Your task to perform on an android device: Open the calendar and show me this week's events? Image 0: 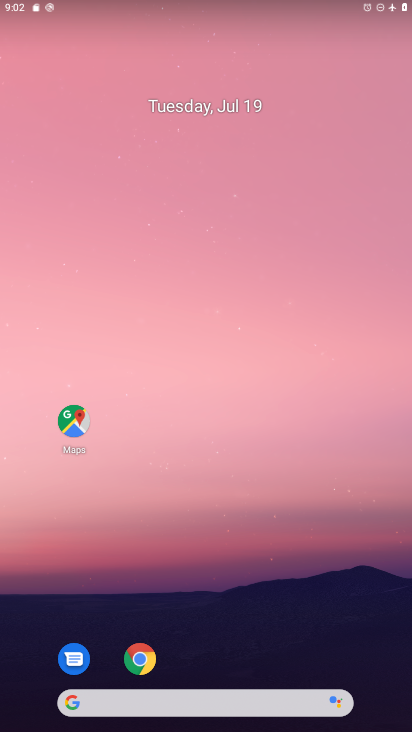
Step 0: drag from (294, 641) to (304, 171)
Your task to perform on an android device: Open the calendar and show me this week's events? Image 1: 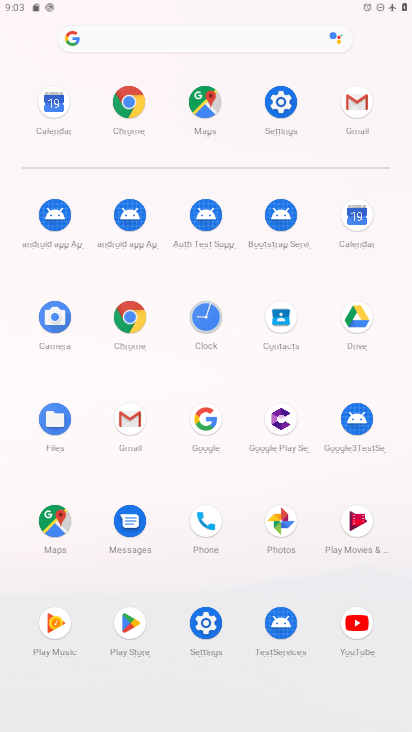
Step 1: click (361, 206)
Your task to perform on an android device: Open the calendar and show me this week's events? Image 2: 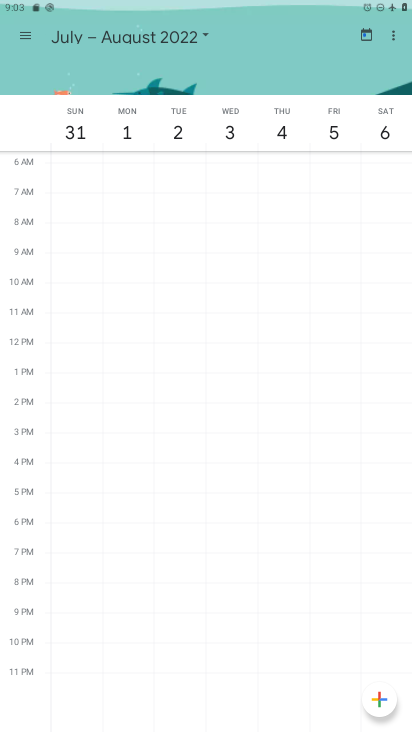
Step 2: click (16, 31)
Your task to perform on an android device: Open the calendar and show me this week's events? Image 3: 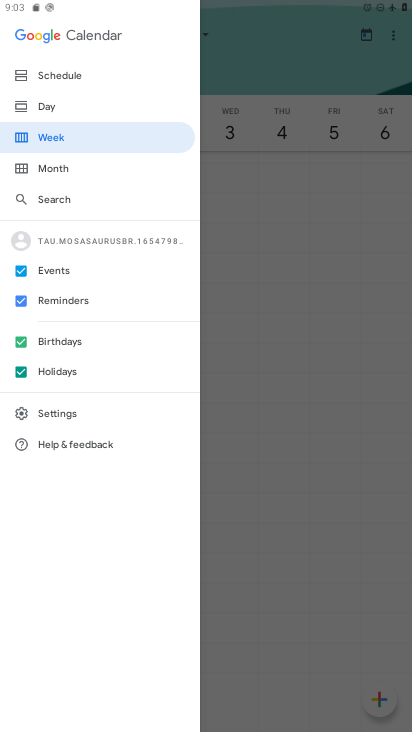
Step 3: click (66, 121)
Your task to perform on an android device: Open the calendar and show me this week's events? Image 4: 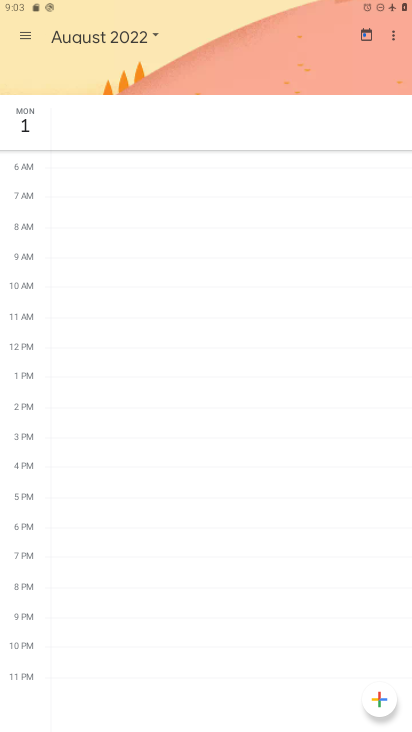
Step 4: click (29, 30)
Your task to perform on an android device: Open the calendar and show me this week's events? Image 5: 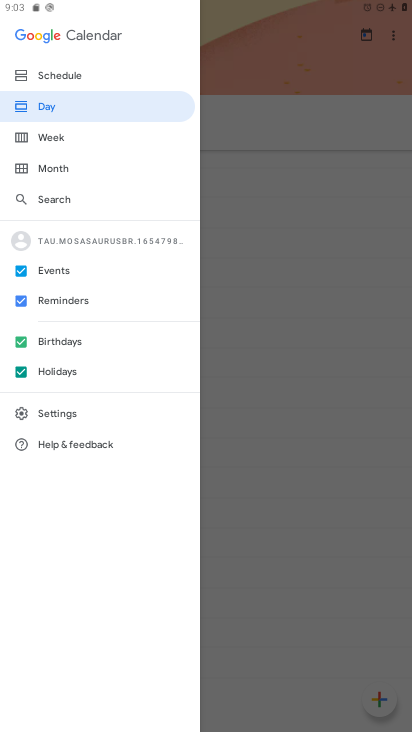
Step 5: click (63, 172)
Your task to perform on an android device: Open the calendar and show me this week's events? Image 6: 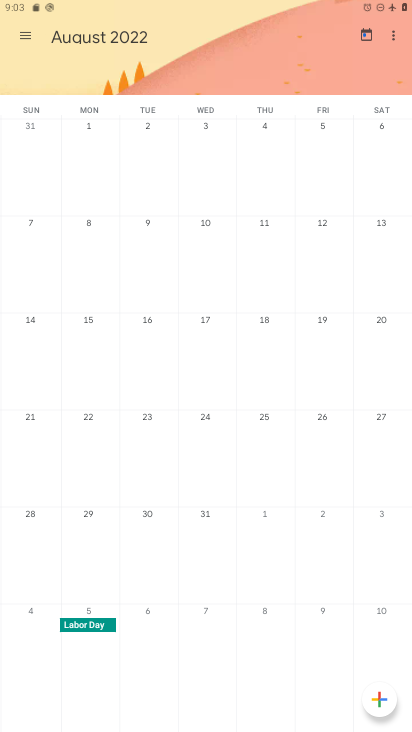
Step 6: drag from (70, 213) to (373, 274)
Your task to perform on an android device: Open the calendar and show me this week's events? Image 7: 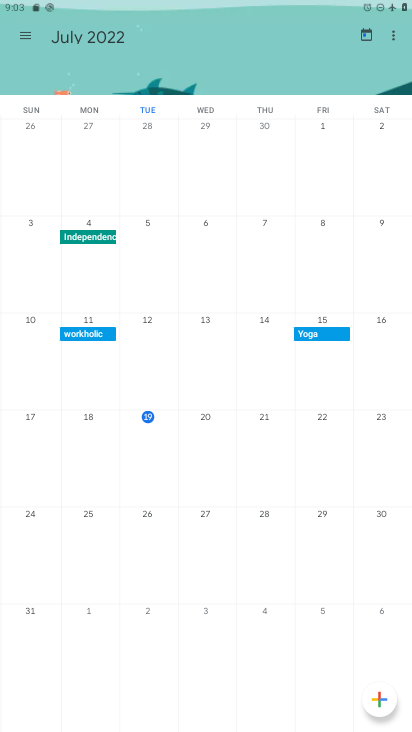
Step 7: click (24, 29)
Your task to perform on an android device: Open the calendar and show me this week's events? Image 8: 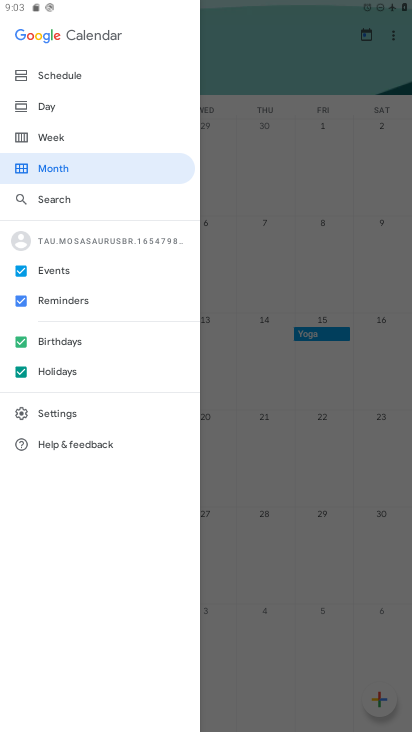
Step 8: click (52, 136)
Your task to perform on an android device: Open the calendar and show me this week's events? Image 9: 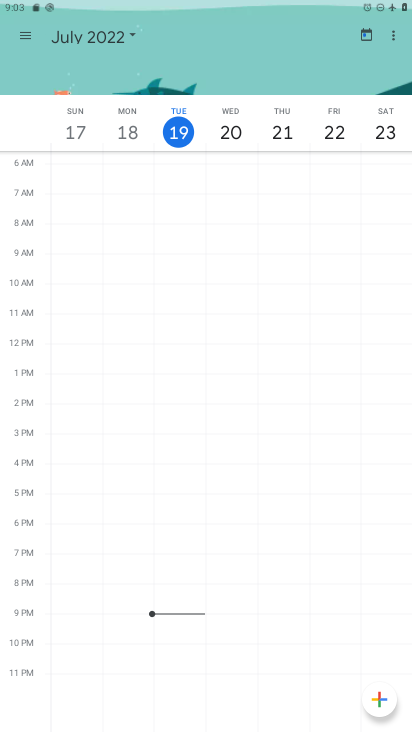
Step 9: task complete